Your task to perform on an android device: Search for bose soundsport free on bestbuy, select the first entry, and add it to the cart. Image 0: 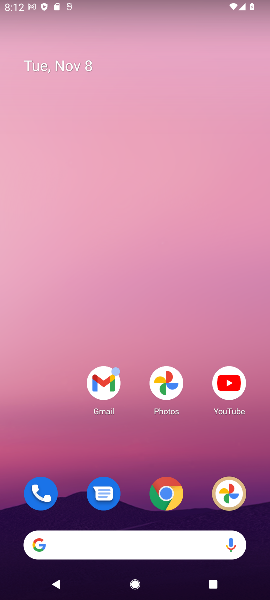
Step 0: click (167, 500)
Your task to perform on an android device: Search for bose soundsport free on bestbuy, select the first entry, and add it to the cart. Image 1: 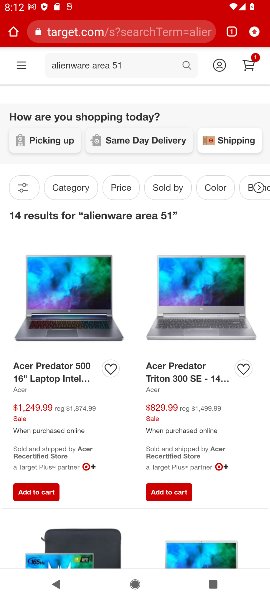
Step 1: click (105, 36)
Your task to perform on an android device: Search for bose soundsport free on bestbuy, select the first entry, and add it to the cart. Image 2: 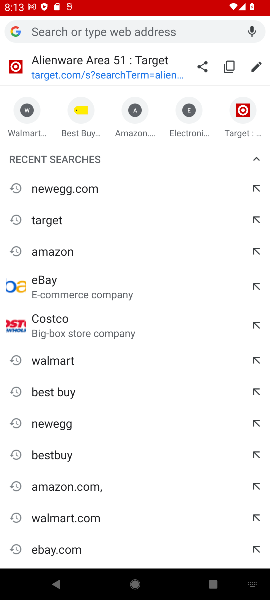
Step 2: type "bestbuy.com"
Your task to perform on an android device: Search for bose soundsport free on bestbuy, select the first entry, and add it to the cart. Image 3: 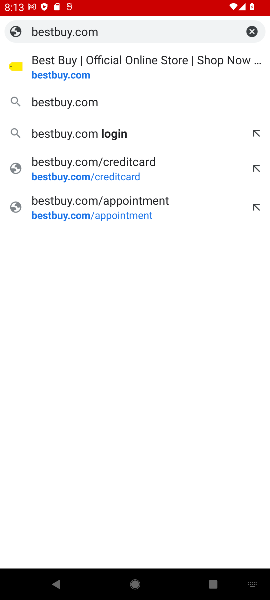
Step 3: click (60, 79)
Your task to perform on an android device: Search for bose soundsport free on bestbuy, select the first entry, and add it to the cart. Image 4: 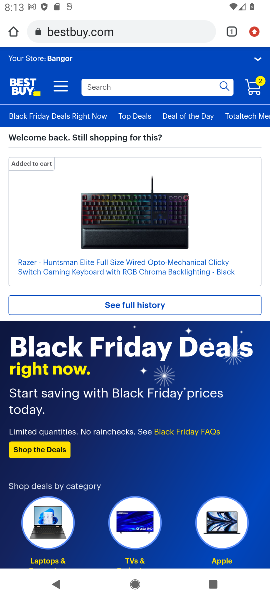
Step 4: click (144, 84)
Your task to perform on an android device: Search for bose soundsport free on bestbuy, select the first entry, and add it to the cart. Image 5: 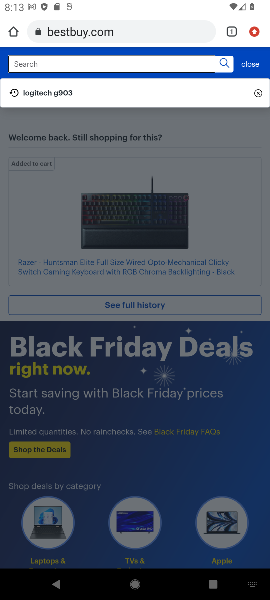
Step 5: type "bose soundsport free "
Your task to perform on an android device: Search for bose soundsport free on bestbuy, select the first entry, and add it to the cart. Image 6: 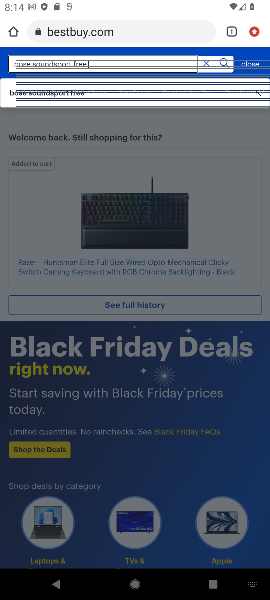
Step 6: click (58, 96)
Your task to perform on an android device: Search for bose soundsport free on bestbuy, select the first entry, and add it to the cart. Image 7: 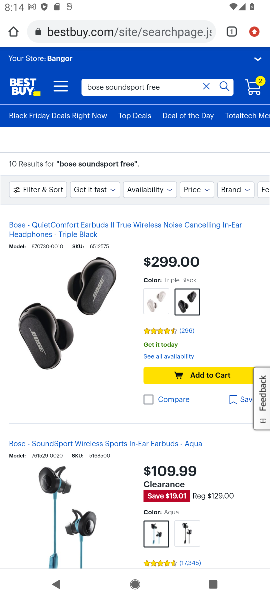
Step 7: task complete